Your task to perform on an android device: turn on notifications settings in the gmail app Image 0: 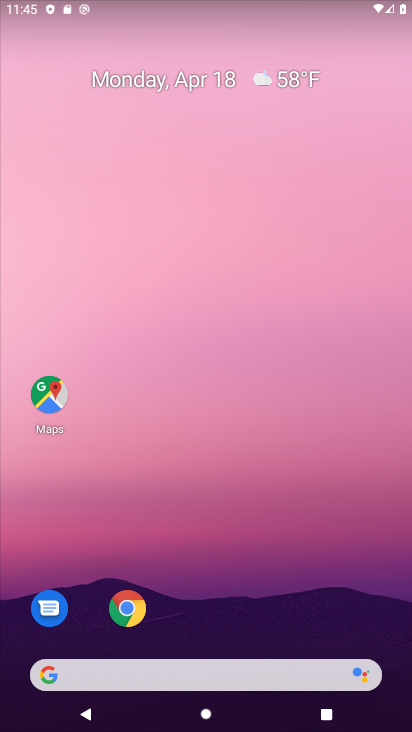
Step 0: drag from (292, 554) to (293, 83)
Your task to perform on an android device: turn on notifications settings in the gmail app Image 1: 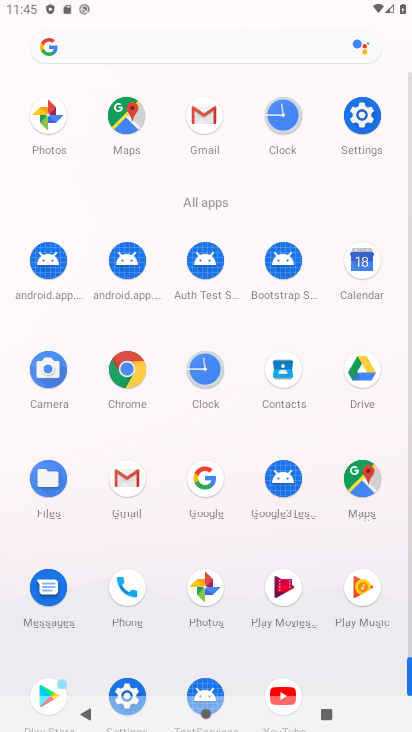
Step 1: click (201, 114)
Your task to perform on an android device: turn on notifications settings in the gmail app Image 2: 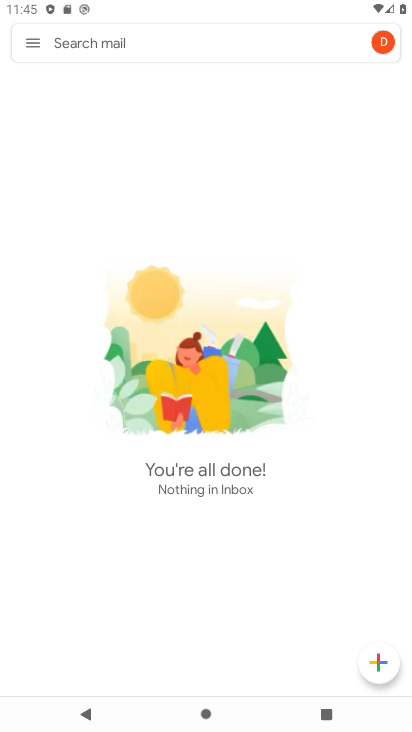
Step 2: click (33, 38)
Your task to perform on an android device: turn on notifications settings in the gmail app Image 3: 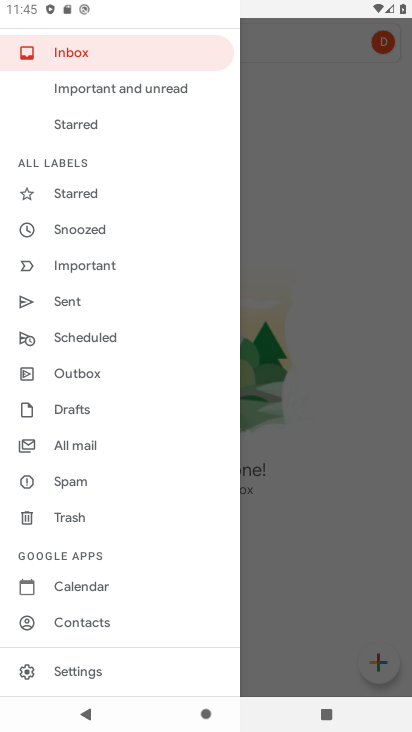
Step 3: drag from (131, 610) to (137, 230)
Your task to perform on an android device: turn on notifications settings in the gmail app Image 4: 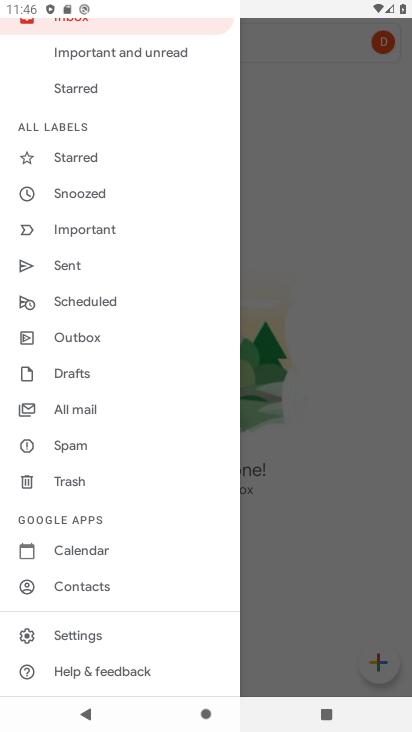
Step 4: click (108, 636)
Your task to perform on an android device: turn on notifications settings in the gmail app Image 5: 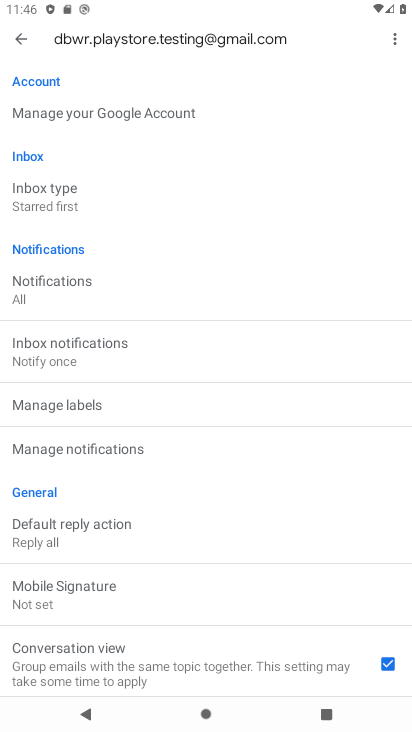
Step 5: drag from (226, 522) to (254, 263)
Your task to perform on an android device: turn on notifications settings in the gmail app Image 6: 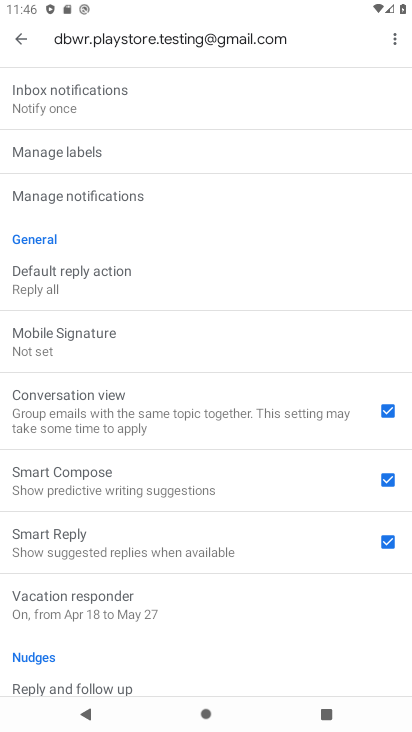
Step 6: click (136, 194)
Your task to perform on an android device: turn on notifications settings in the gmail app Image 7: 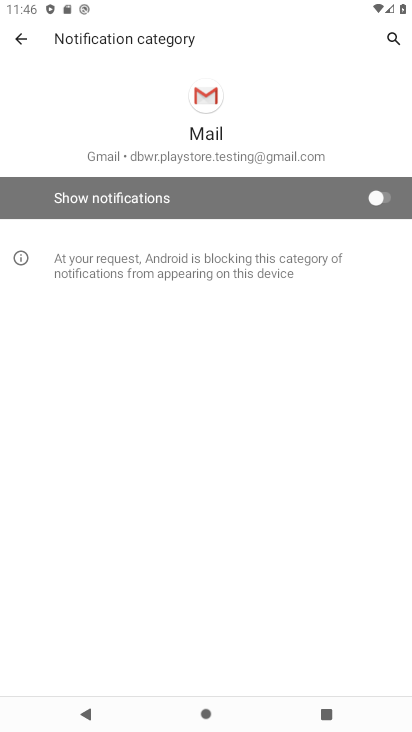
Step 7: click (301, 196)
Your task to perform on an android device: turn on notifications settings in the gmail app Image 8: 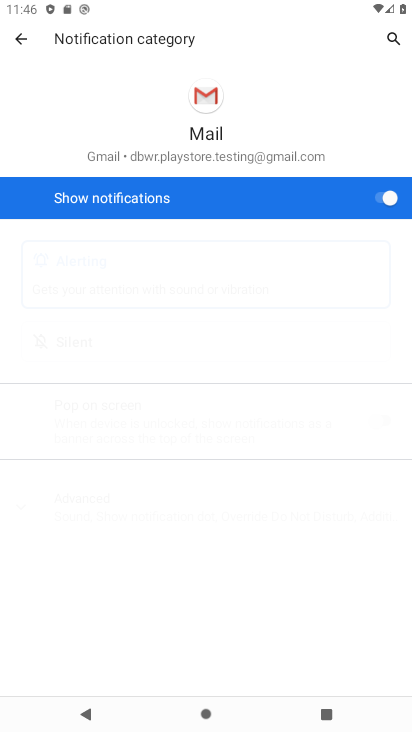
Step 8: task complete